Your task to perform on an android device: Open Android settings Image 0: 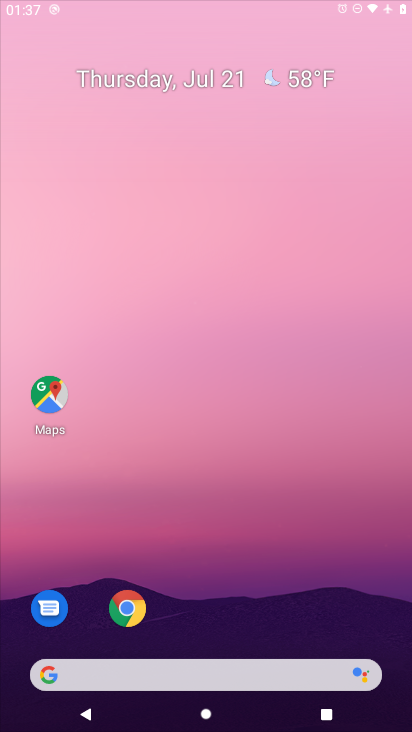
Step 0: press home button
Your task to perform on an android device: Open Android settings Image 1: 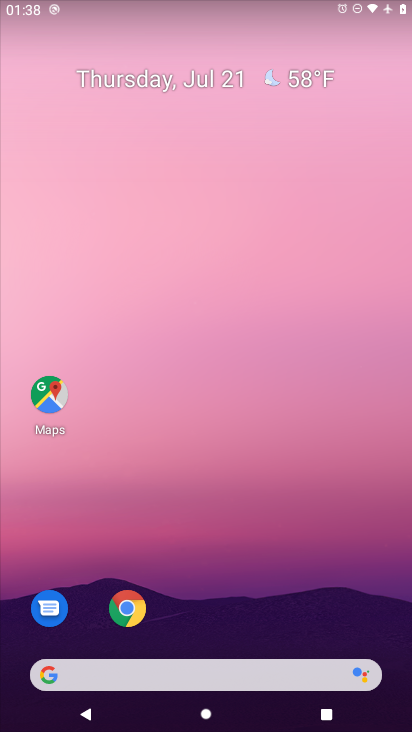
Step 1: drag from (229, 641) to (351, 96)
Your task to perform on an android device: Open Android settings Image 2: 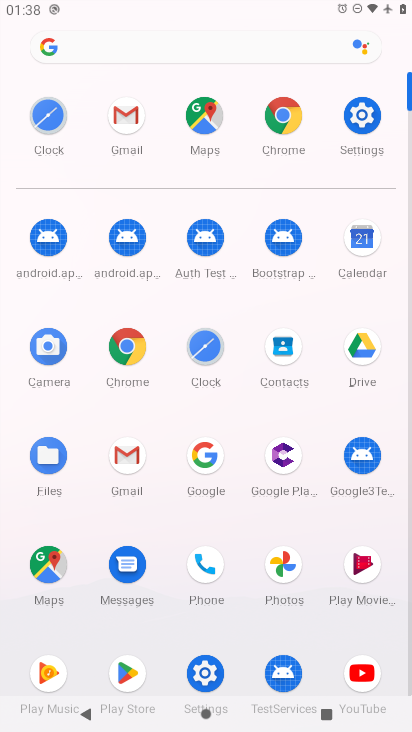
Step 2: click (363, 125)
Your task to perform on an android device: Open Android settings Image 3: 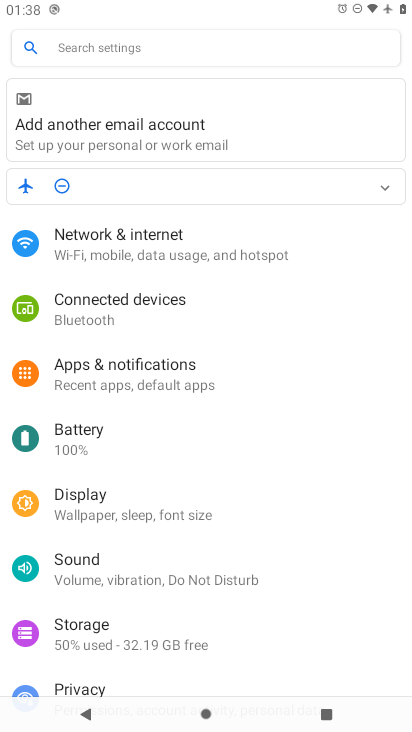
Step 3: task complete